Your task to perform on an android device: check google app version Image 0: 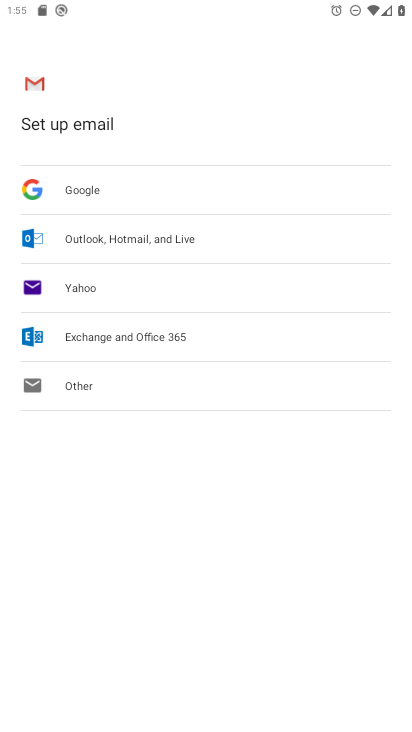
Step 0: press home button
Your task to perform on an android device: check google app version Image 1: 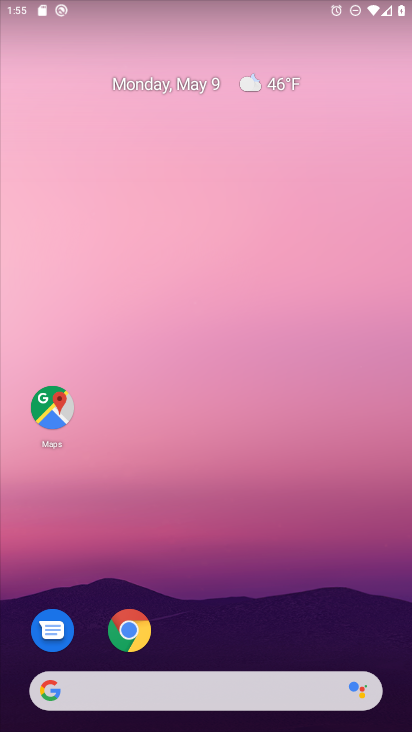
Step 1: drag from (219, 725) to (198, 351)
Your task to perform on an android device: check google app version Image 2: 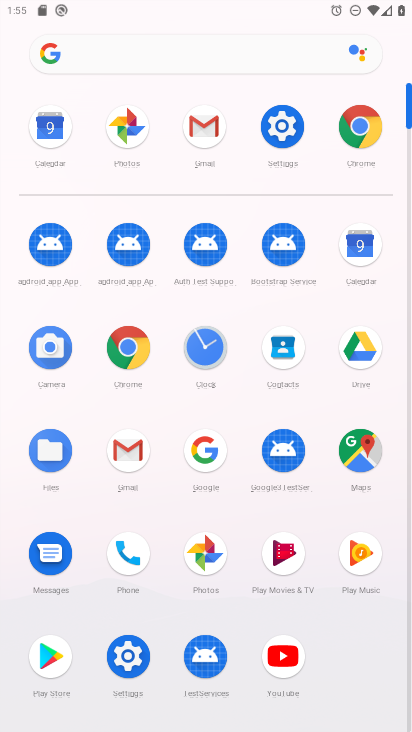
Step 2: click (357, 151)
Your task to perform on an android device: check google app version Image 3: 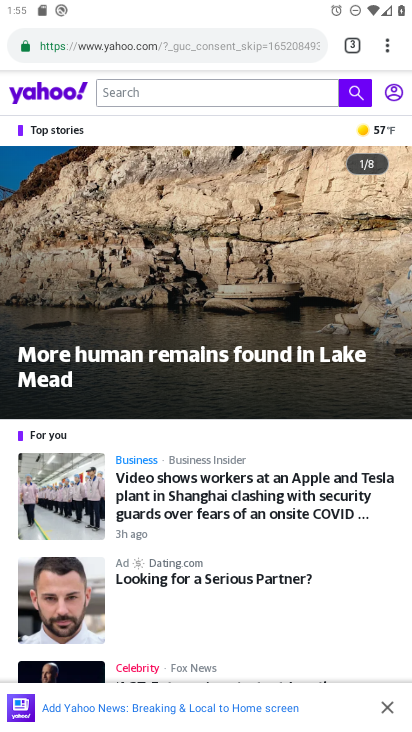
Step 3: click (378, 56)
Your task to perform on an android device: check google app version Image 4: 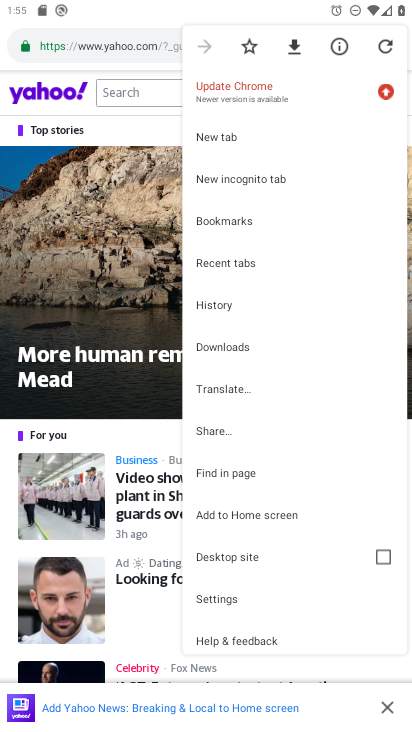
Step 4: click (214, 601)
Your task to perform on an android device: check google app version Image 5: 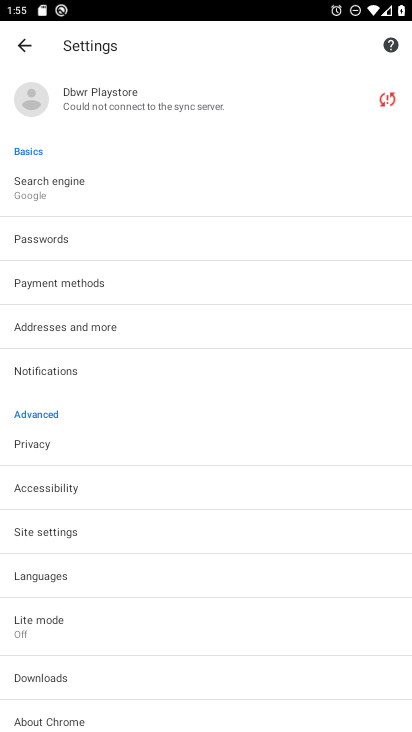
Step 5: click (53, 724)
Your task to perform on an android device: check google app version Image 6: 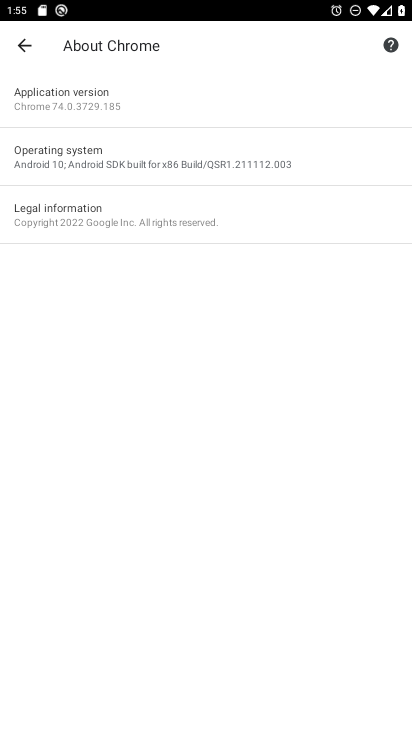
Step 6: click (112, 118)
Your task to perform on an android device: check google app version Image 7: 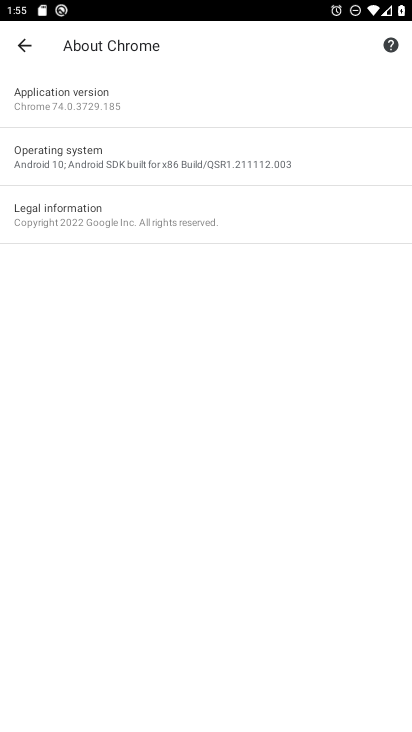
Step 7: click (101, 107)
Your task to perform on an android device: check google app version Image 8: 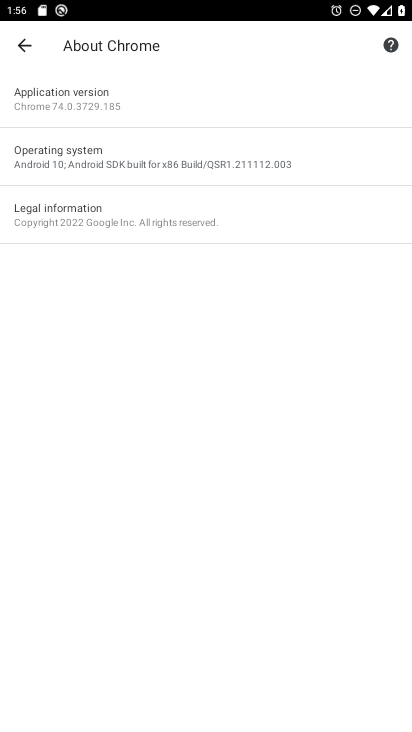
Step 8: click (130, 92)
Your task to perform on an android device: check google app version Image 9: 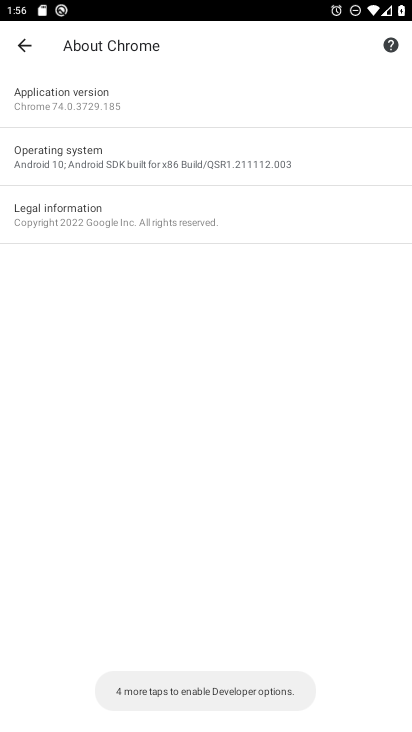
Step 9: task complete